Your task to perform on an android device: Go to ESPN.com Image 0: 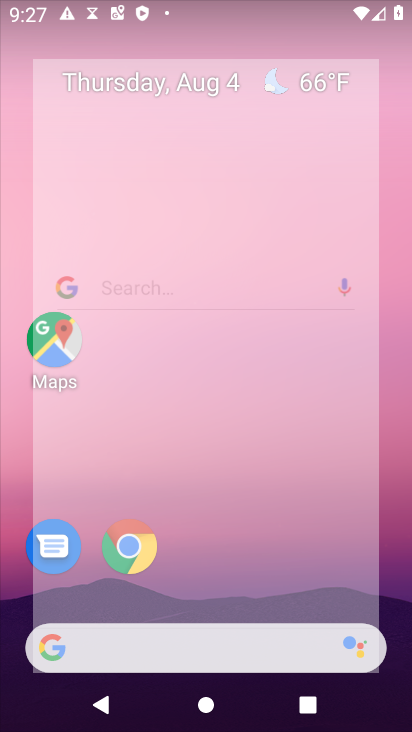
Step 0: press home button
Your task to perform on an android device: Go to ESPN.com Image 1: 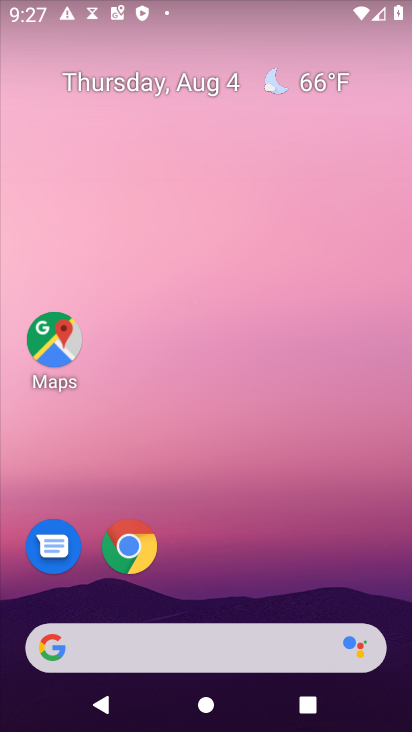
Step 1: click (49, 645)
Your task to perform on an android device: Go to ESPN.com Image 2: 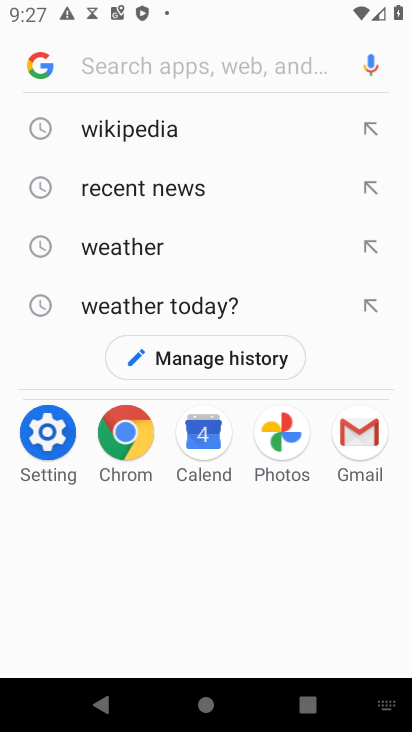
Step 2: type "ESPN.com"
Your task to perform on an android device: Go to ESPN.com Image 3: 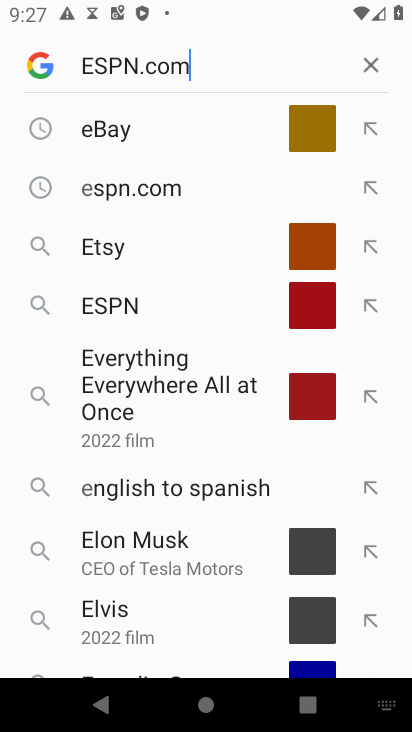
Step 3: press enter
Your task to perform on an android device: Go to ESPN.com Image 4: 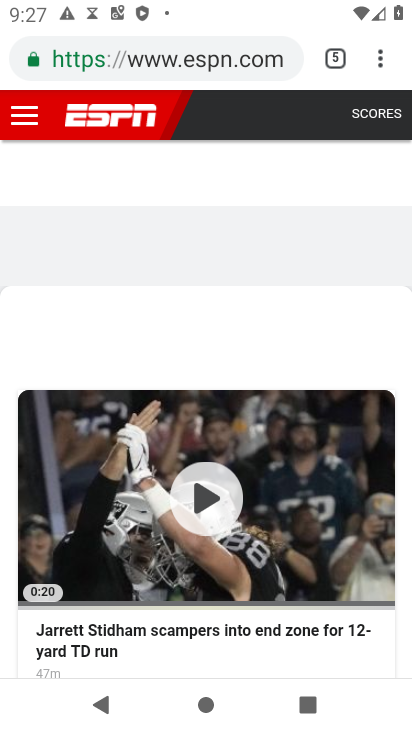
Step 4: task complete